Your task to perform on an android device: see creations saved in the google photos Image 0: 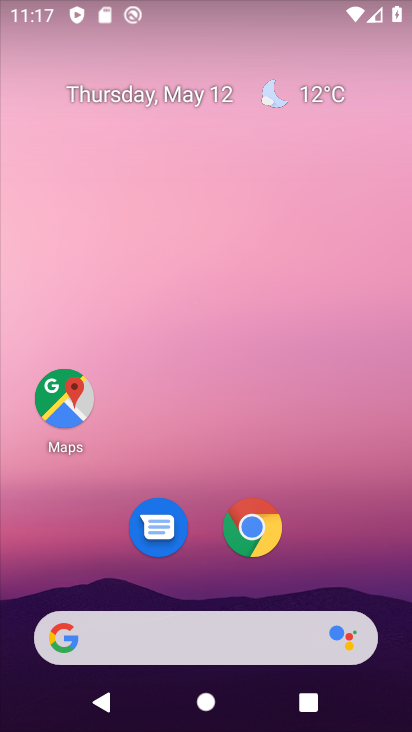
Step 0: press home button
Your task to perform on an android device: see creations saved in the google photos Image 1: 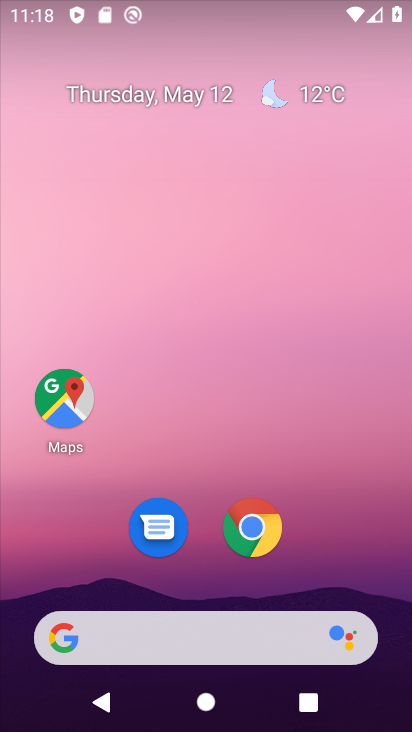
Step 1: drag from (77, 442) to (212, 173)
Your task to perform on an android device: see creations saved in the google photos Image 2: 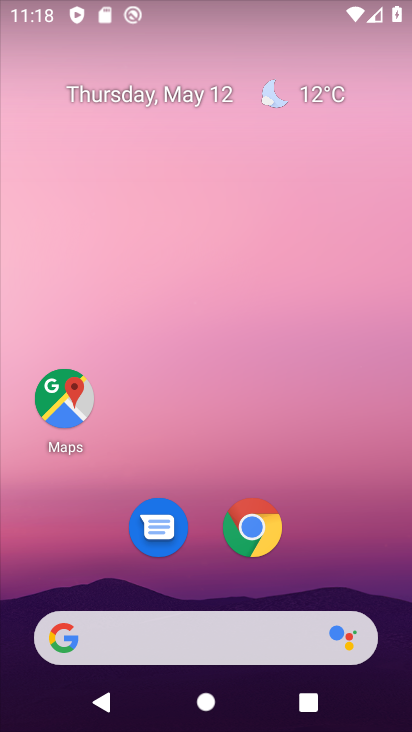
Step 2: drag from (65, 659) to (407, 102)
Your task to perform on an android device: see creations saved in the google photos Image 3: 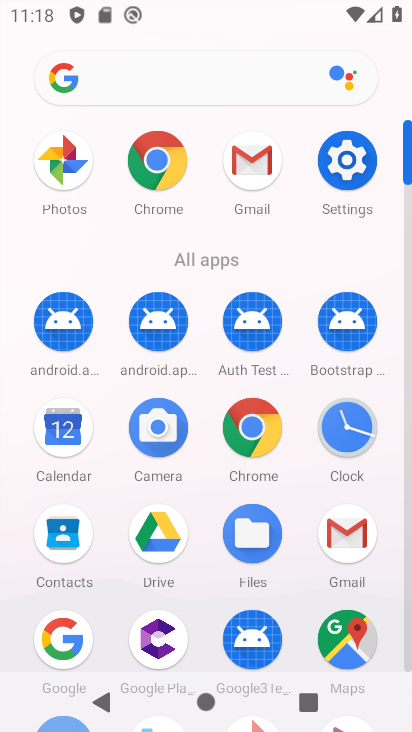
Step 3: click (54, 148)
Your task to perform on an android device: see creations saved in the google photos Image 4: 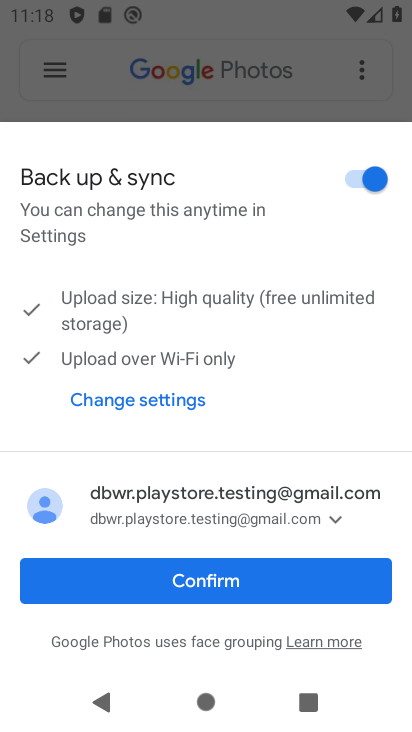
Step 4: click (230, 589)
Your task to perform on an android device: see creations saved in the google photos Image 5: 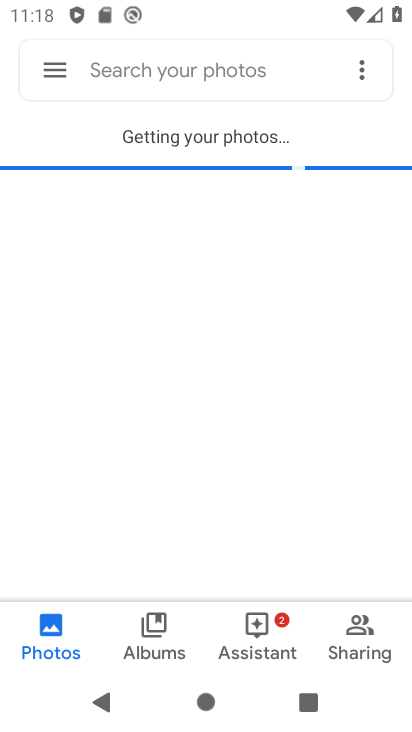
Step 5: click (191, 69)
Your task to perform on an android device: see creations saved in the google photos Image 6: 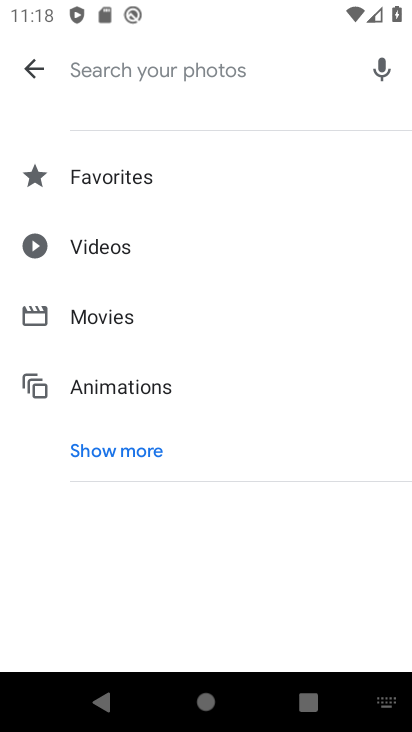
Step 6: click (103, 452)
Your task to perform on an android device: see creations saved in the google photos Image 7: 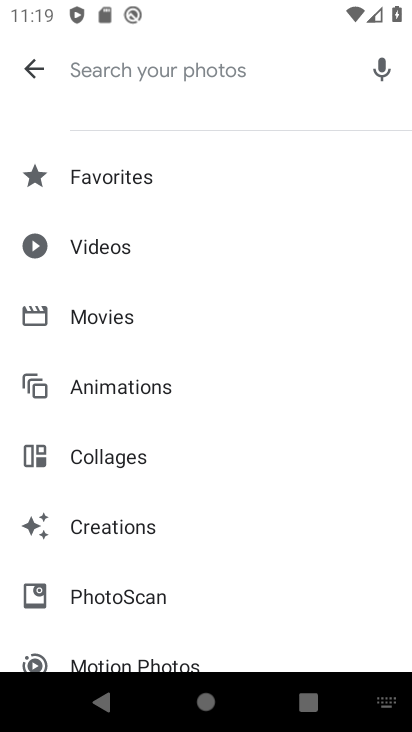
Step 7: click (81, 529)
Your task to perform on an android device: see creations saved in the google photos Image 8: 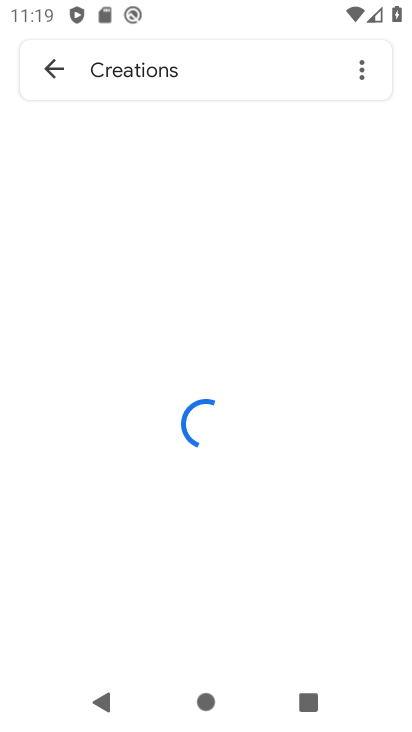
Step 8: task complete